Your task to perform on an android device: turn off airplane mode Image 0: 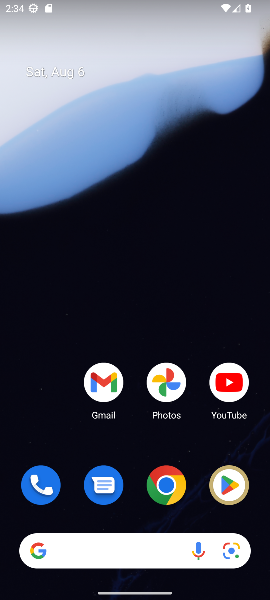
Step 0: press home button
Your task to perform on an android device: turn off airplane mode Image 1: 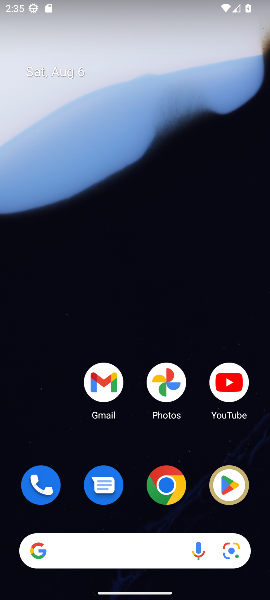
Step 1: drag from (134, 458) to (137, 6)
Your task to perform on an android device: turn off airplane mode Image 2: 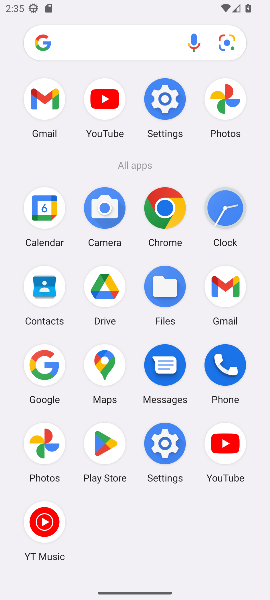
Step 2: click (157, 98)
Your task to perform on an android device: turn off airplane mode Image 3: 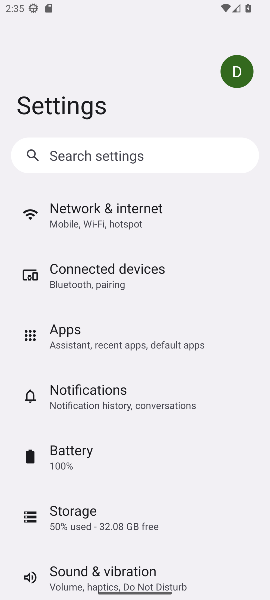
Step 3: click (117, 206)
Your task to perform on an android device: turn off airplane mode Image 4: 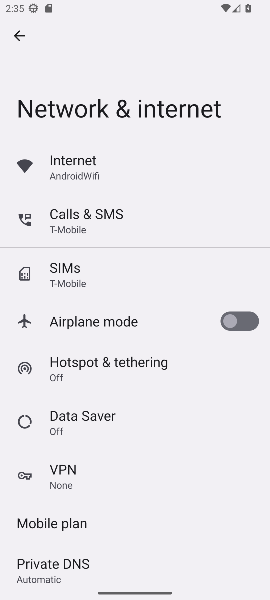
Step 4: click (99, 170)
Your task to perform on an android device: turn off airplane mode Image 5: 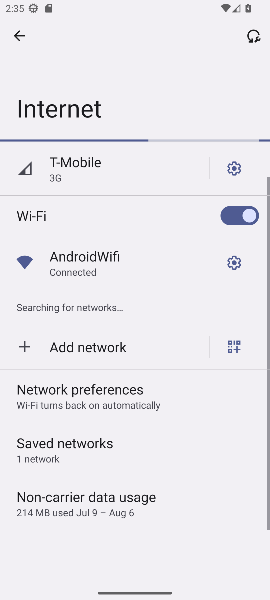
Step 5: click (21, 29)
Your task to perform on an android device: turn off airplane mode Image 6: 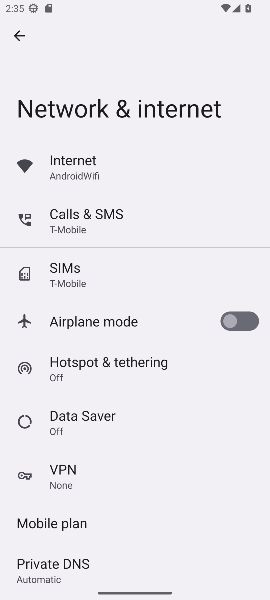
Step 6: task complete